Your task to perform on an android device: Open the phone app and click the voicemail tab. Image 0: 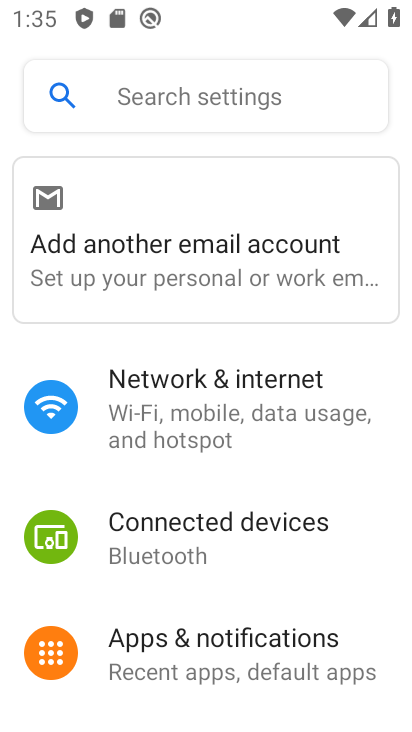
Step 0: press back button
Your task to perform on an android device: Open the phone app and click the voicemail tab. Image 1: 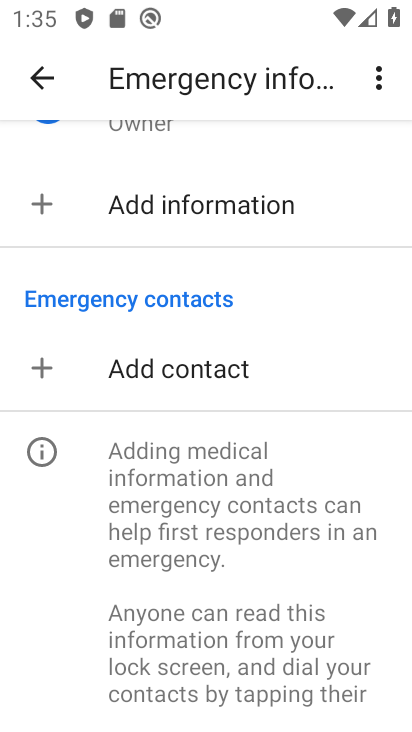
Step 1: press home button
Your task to perform on an android device: Open the phone app and click the voicemail tab. Image 2: 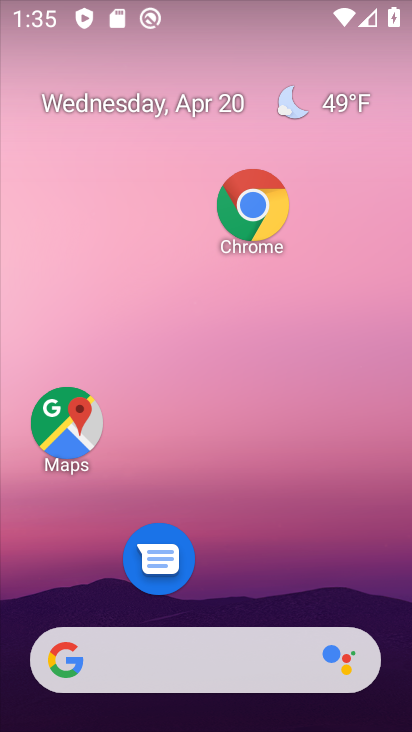
Step 2: drag from (211, 621) to (202, 296)
Your task to perform on an android device: Open the phone app and click the voicemail tab. Image 3: 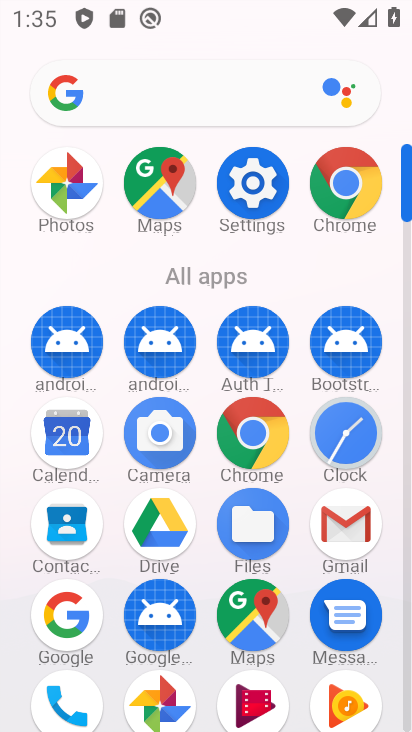
Step 3: click (64, 699)
Your task to perform on an android device: Open the phone app and click the voicemail tab. Image 4: 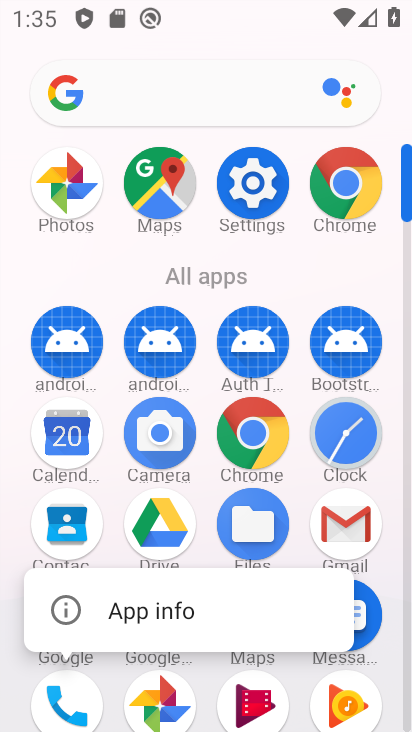
Step 4: click (70, 710)
Your task to perform on an android device: Open the phone app and click the voicemail tab. Image 5: 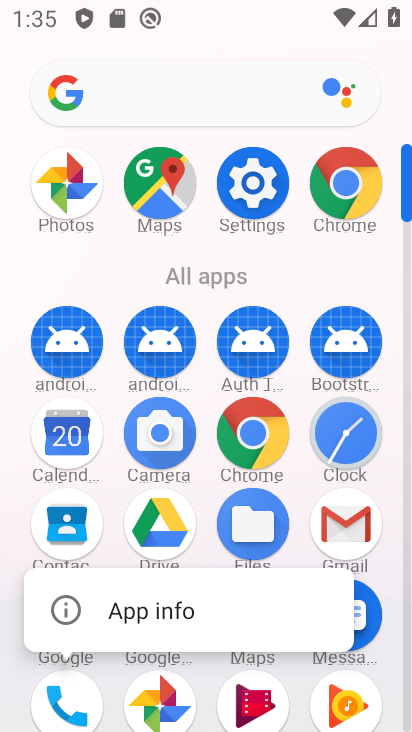
Step 5: click (59, 695)
Your task to perform on an android device: Open the phone app and click the voicemail tab. Image 6: 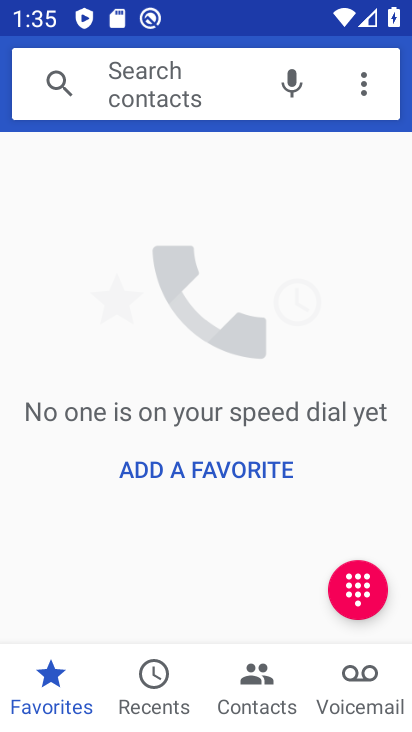
Step 6: click (353, 692)
Your task to perform on an android device: Open the phone app and click the voicemail tab. Image 7: 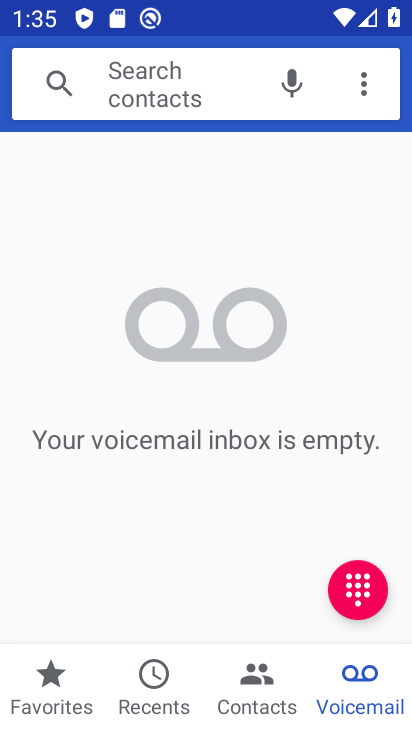
Step 7: task complete